Your task to perform on an android device: Search for "bose soundlink" on ebay, select the first entry, and add it to the cart. Image 0: 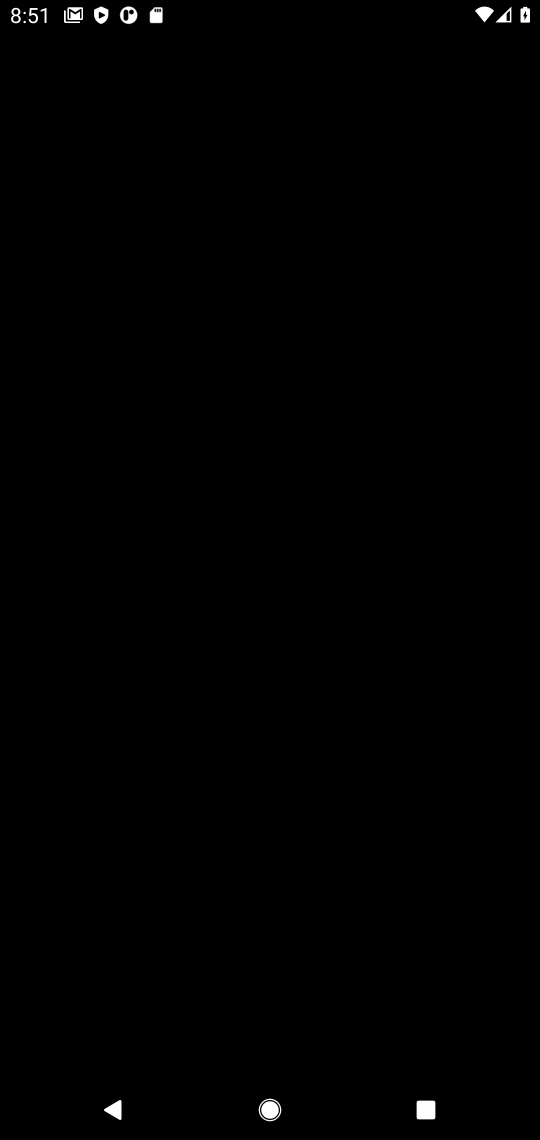
Step 0: press home button
Your task to perform on an android device: Search for "bose soundlink" on ebay, select the first entry, and add it to the cart. Image 1: 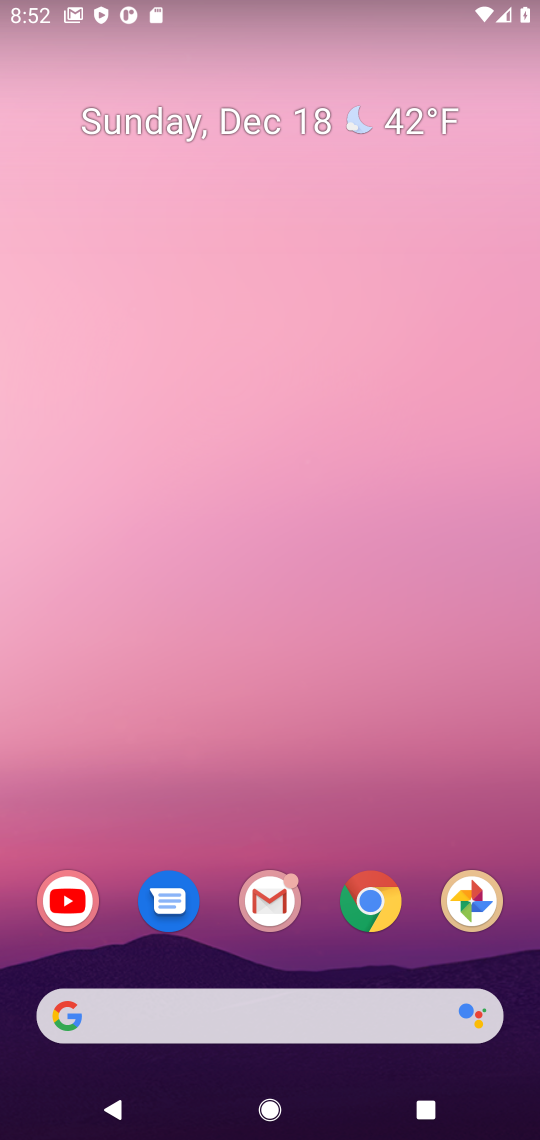
Step 1: click (352, 919)
Your task to perform on an android device: Search for "bose soundlink" on ebay, select the first entry, and add it to the cart. Image 2: 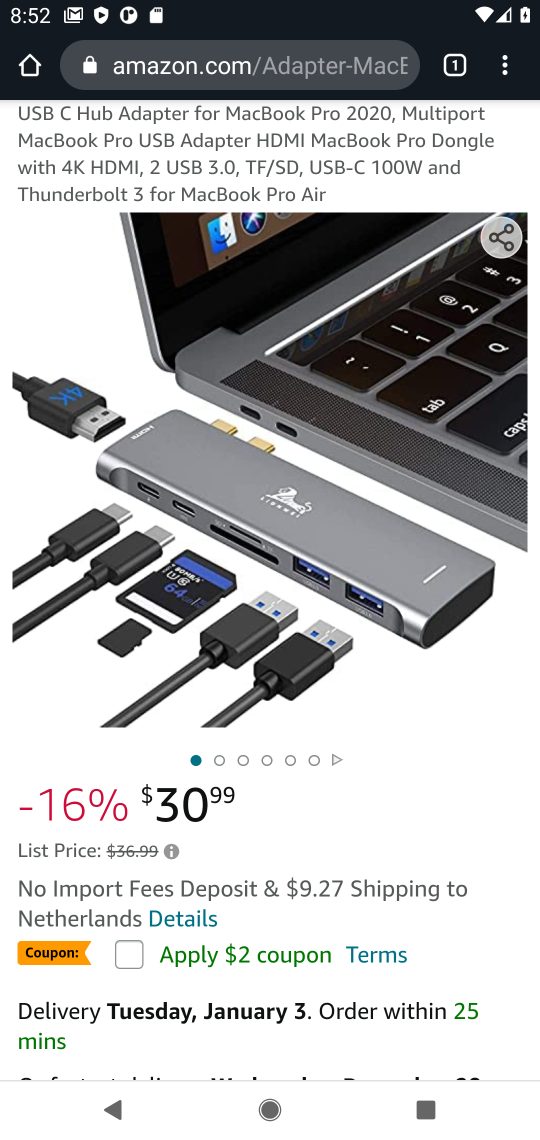
Step 2: click (151, 76)
Your task to perform on an android device: Search for "bose soundlink" on ebay, select the first entry, and add it to the cart. Image 3: 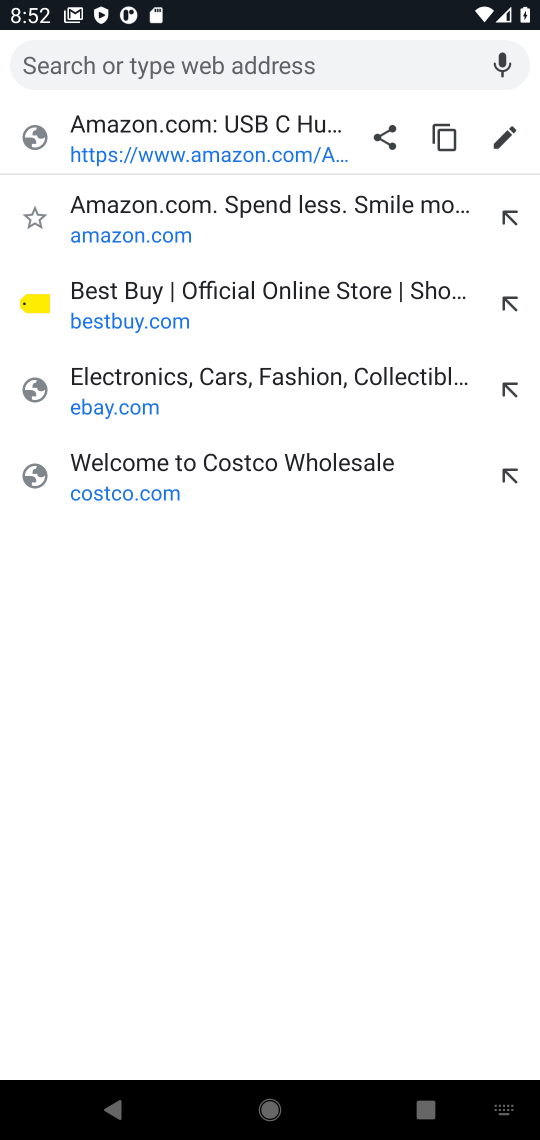
Step 3: type "ebay"
Your task to perform on an android device: Search for "bose soundlink" on ebay, select the first entry, and add it to the cart. Image 4: 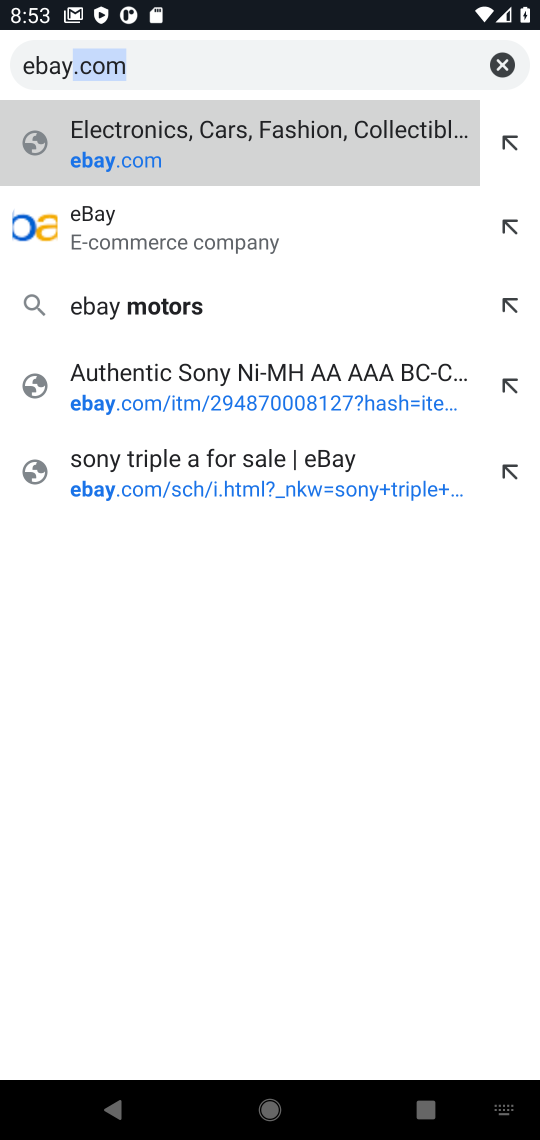
Step 4: click (145, 143)
Your task to perform on an android device: Search for "bose soundlink" on ebay, select the first entry, and add it to the cart. Image 5: 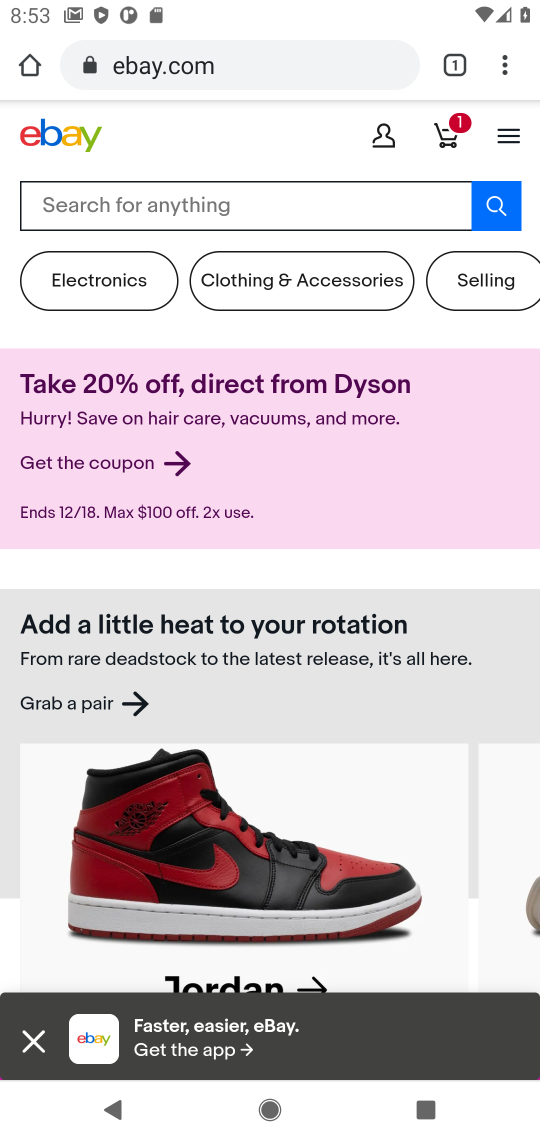
Step 5: click (190, 193)
Your task to perform on an android device: Search for "bose soundlink" on ebay, select the first entry, and add it to the cart. Image 6: 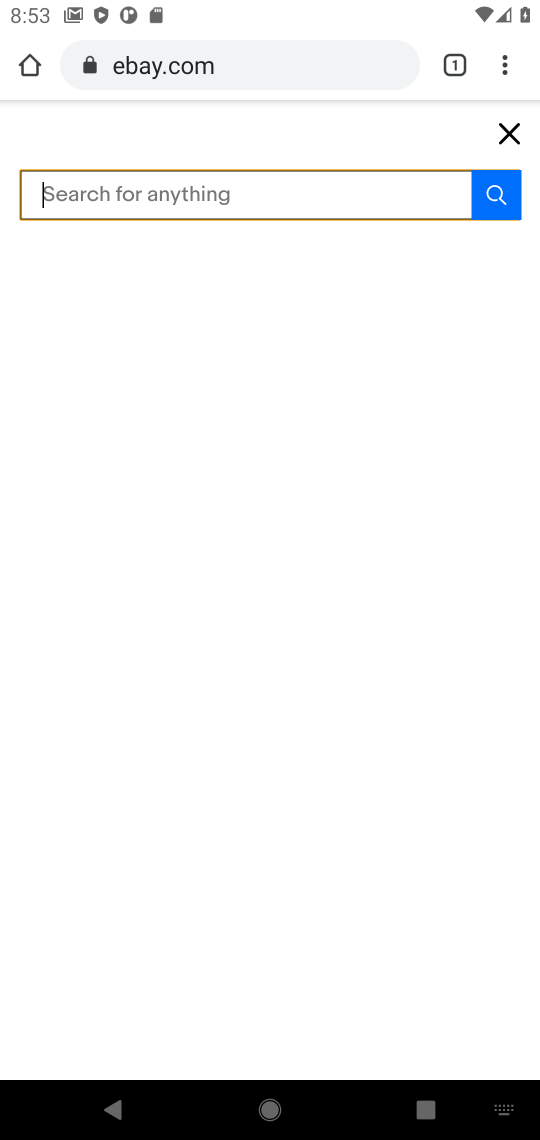
Step 6: type "bose sound link"
Your task to perform on an android device: Search for "bose soundlink" on ebay, select the first entry, and add it to the cart. Image 7: 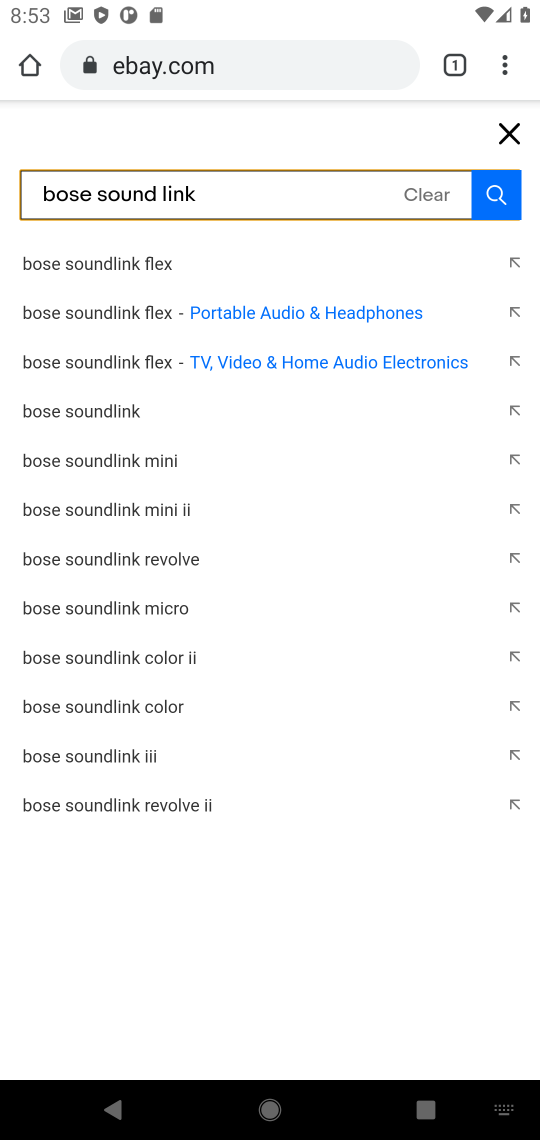
Step 7: click (482, 192)
Your task to perform on an android device: Search for "bose soundlink" on ebay, select the first entry, and add it to the cart. Image 8: 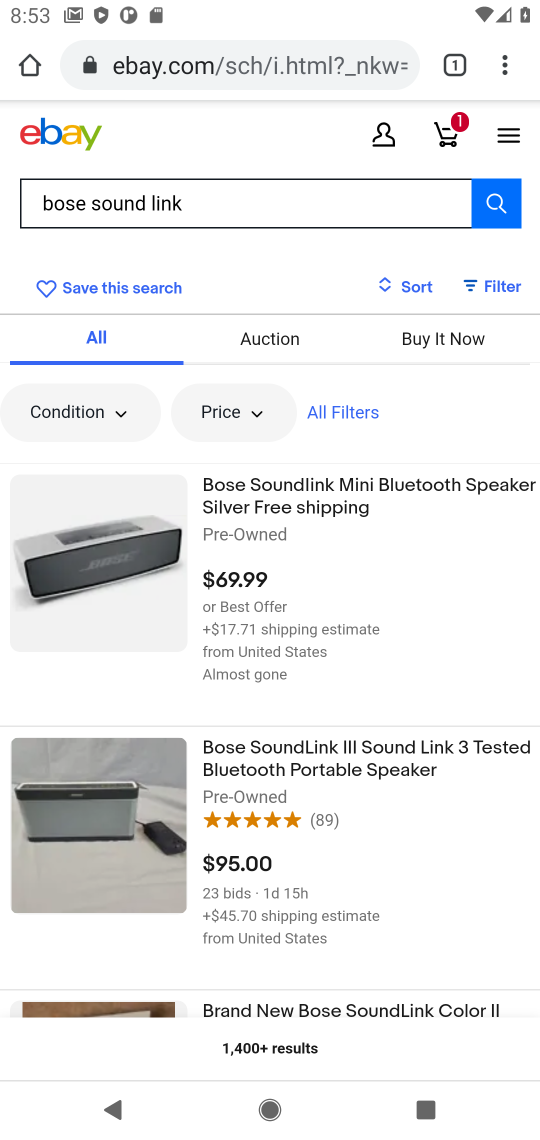
Step 8: click (352, 539)
Your task to perform on an android device: Search for "bose soundlink" on ebay, select the first entry, and add it to the cart. Image 9: 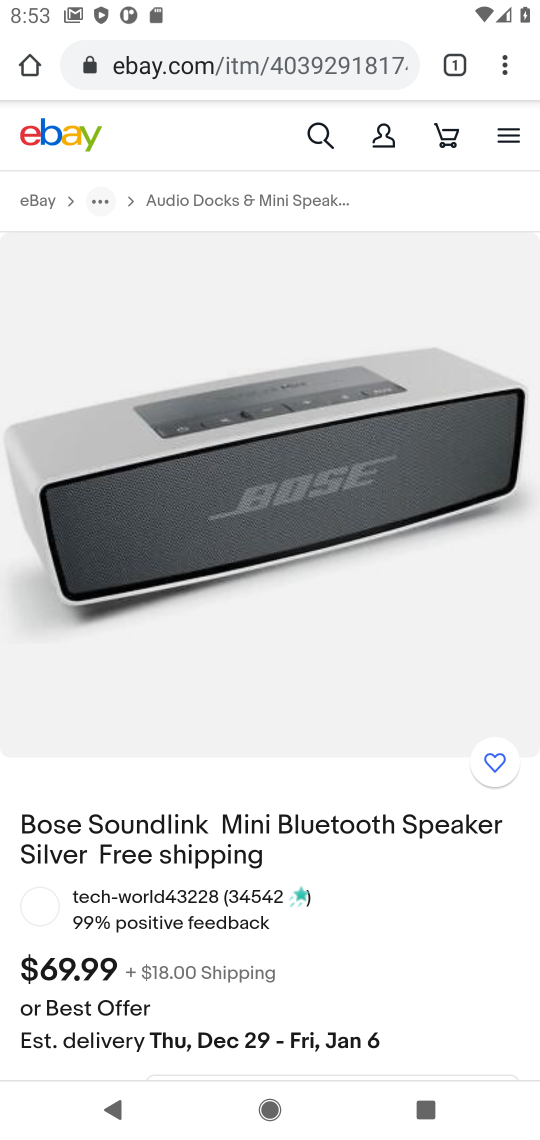
Step 9: drag from (387, 941) to (375, 462)
Your task to perform on an android device: Search for "bose soundlink" on ebay, select the first entry, and add it to the cart. Image 10: 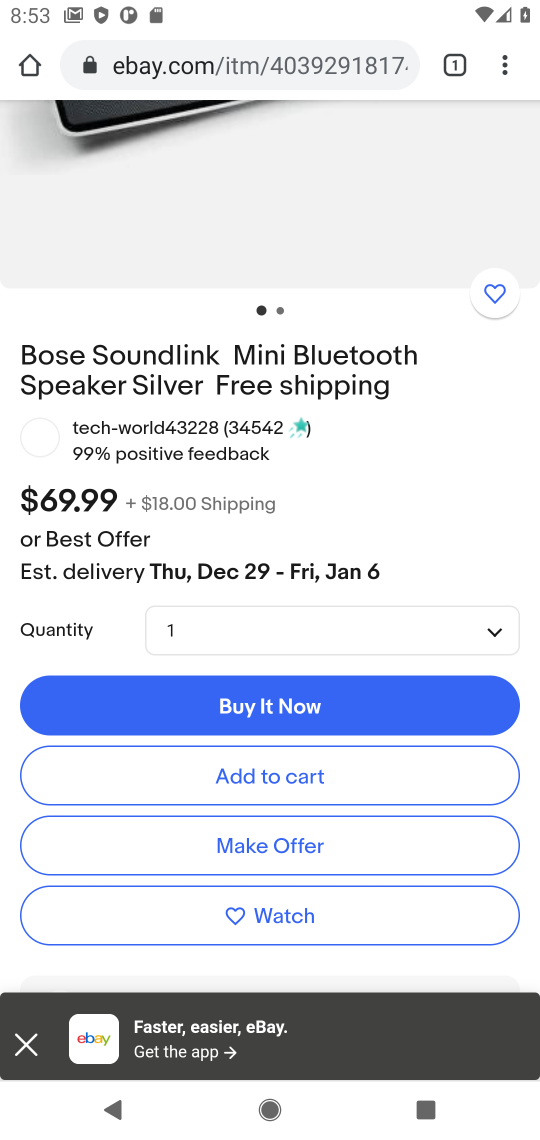
Step 10: click (389, 764)
Your task to perform on an android device: Search for "bose soundlink" on ebay, select the first entry, and add it to the cart. Image 11: 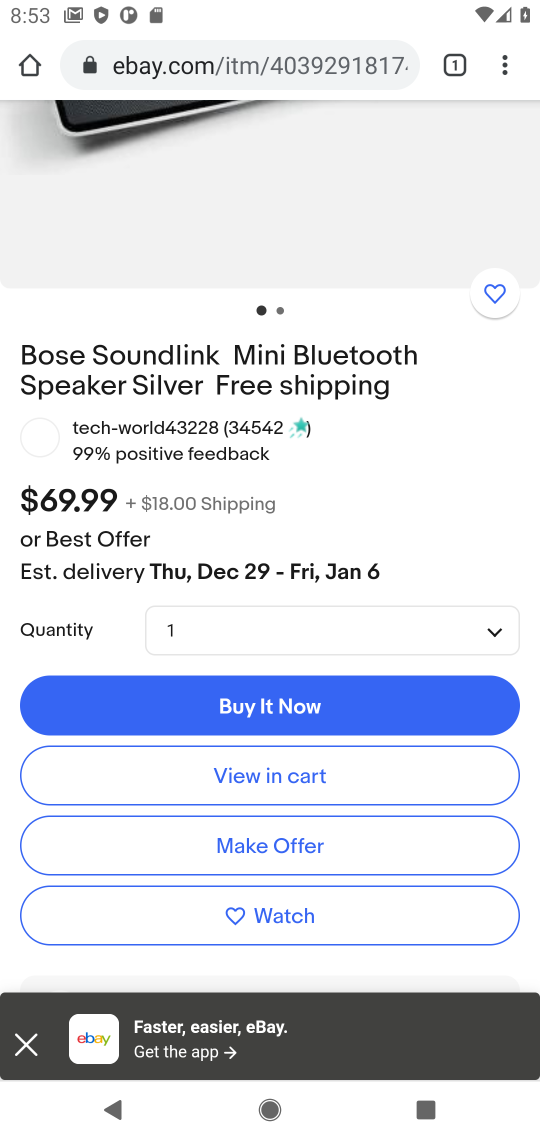
Step 11: task complete